Your task to perform on an android device: Go to privacy settings Image 0: 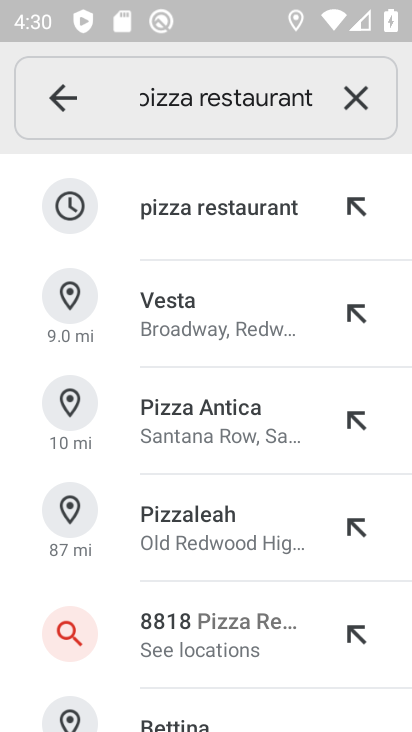
Step 0: press home button
Your task to perform on an android device: Go to privacy settings Image 1: 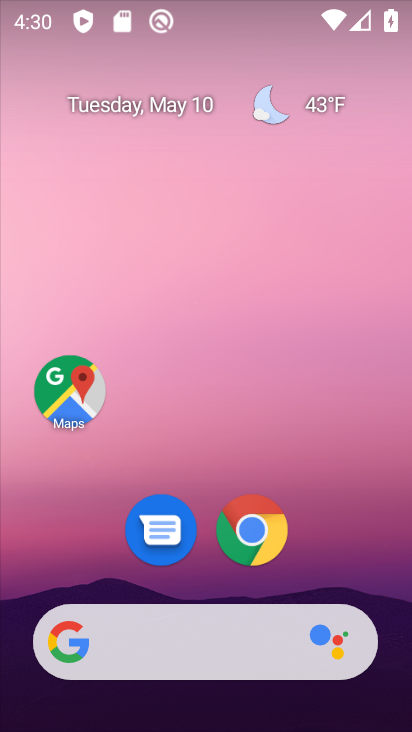
Step 1: drag from (333, 559) to (320, 112)
Your task to perform on an android device: Go to privacy settings Image 2: 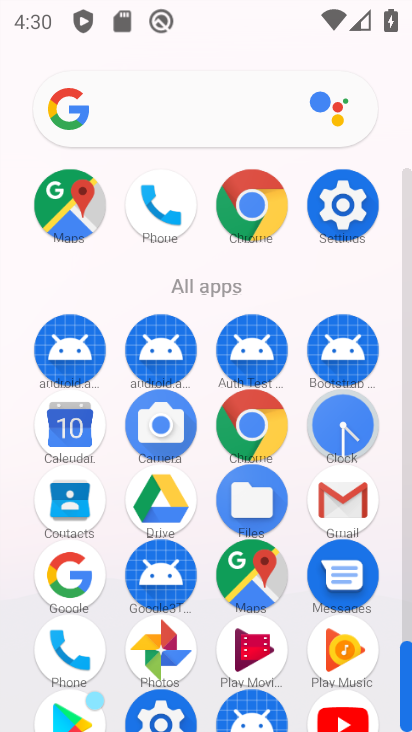
Step 2: click (346, 178)
Your task to perform on an android device: Go to privacy settings Image 3: 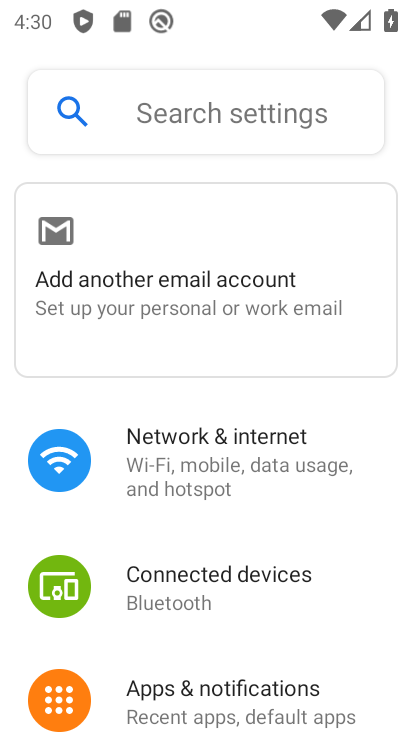
Step 3: drag from (260, 645) to (264, 227)
Your task to perform on an android device: Go to privacy settings Image 4: 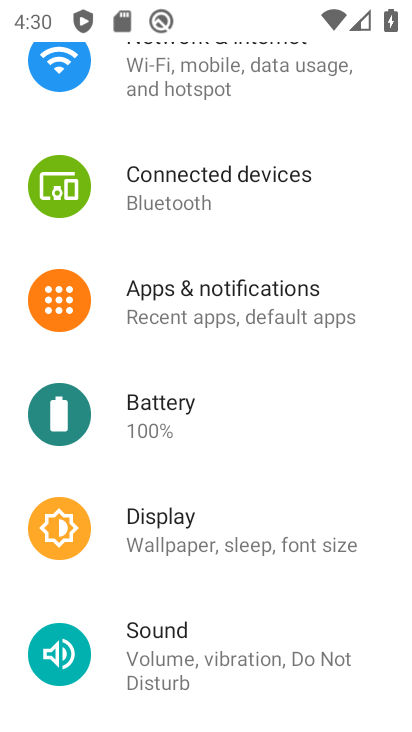
Step 4: drag from (323, 633) to (316, 243)
Your task to perform on an android device: Go to privacy settings Image 5: 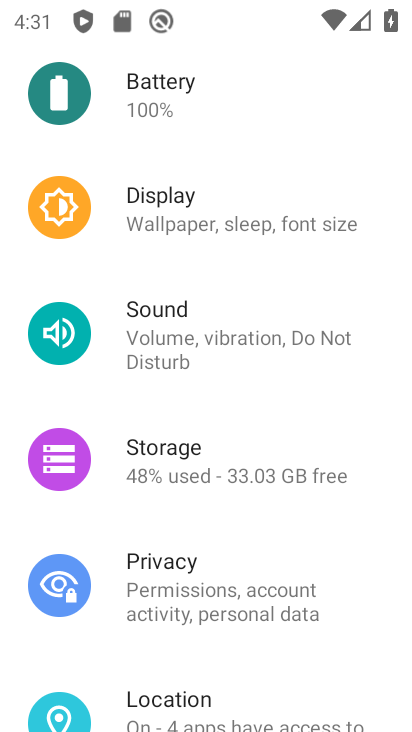
Step 5: click (250, 595)
Your task to perform on an android device: Go to privacy settings Image 6: 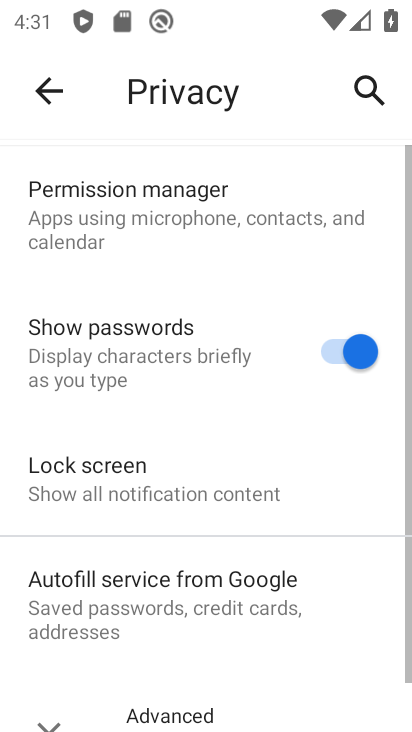
Step 6: task complete